Your task to perform on an android device: Search for pizza restaurants on Maps Image 0: 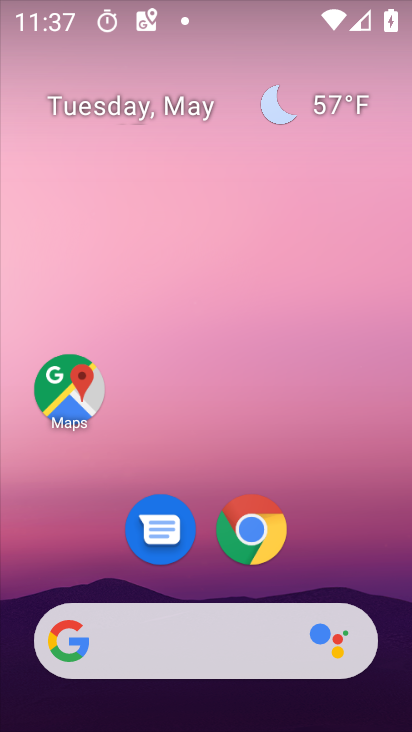
Step 0: click (61, 402)
Your task to perform on an android device: Search for pizza restaurants on Maps Image 1: 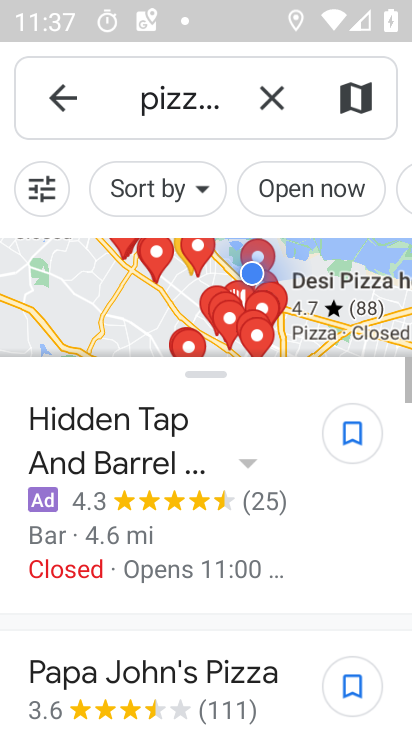
Step 1: task complete